Your task to perform on an android device: Go to location settings Image 0: 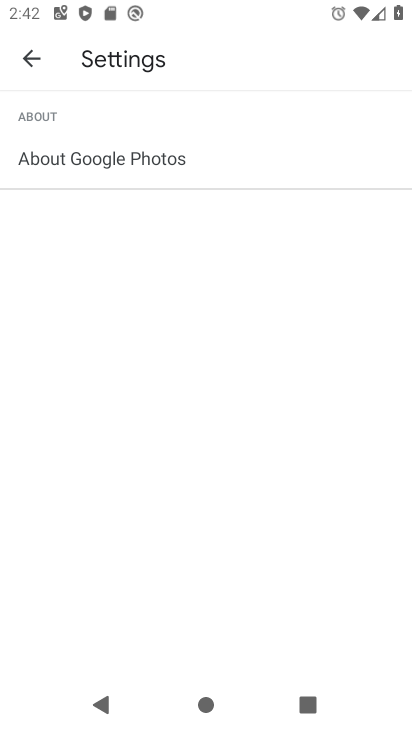
Step 0: press home button
Your task to perform on an android device: Go to location settings Image 1: 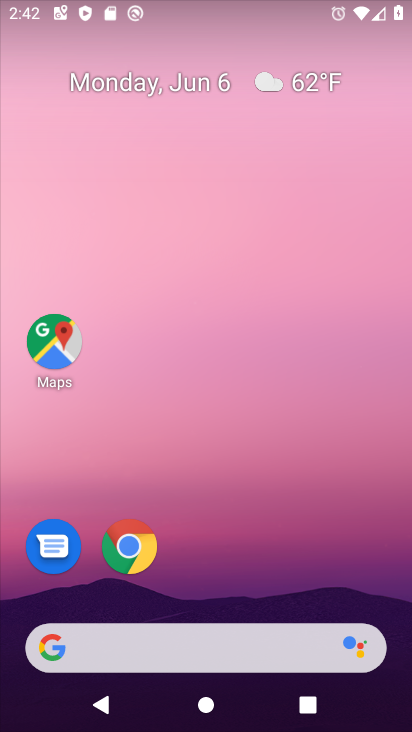
Step 1: drag from (214, 607) to (188, 245)
Your task to perform on an android device: Go to location settings Image 2: 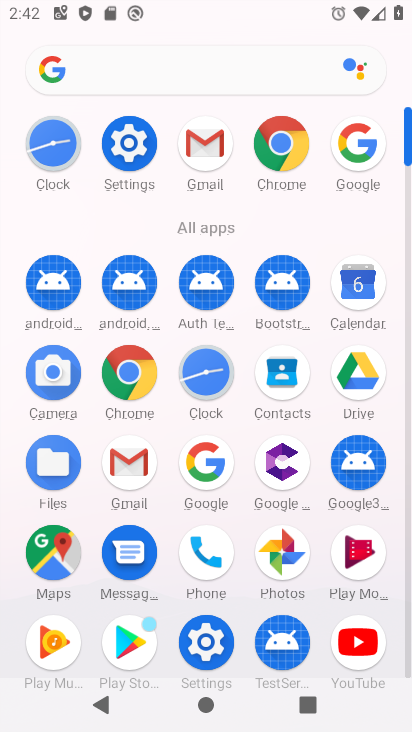
Step 2: click (132, 162)
Your task to perform on an android device: Go to location settings Image 3: 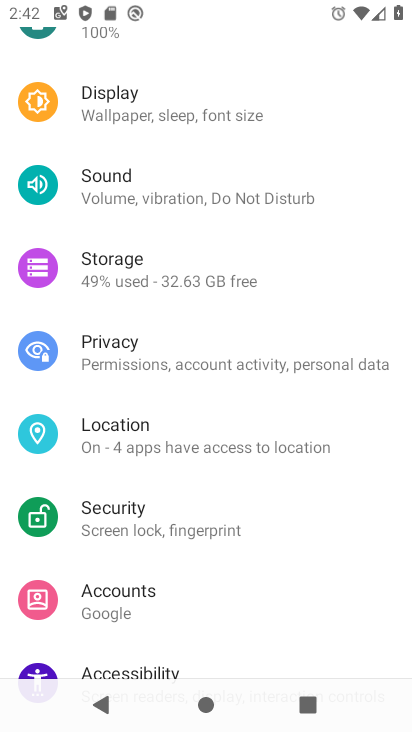
Step 3: click (181, 420)
Your task to perform on an android device: Go to location settings Image 4: 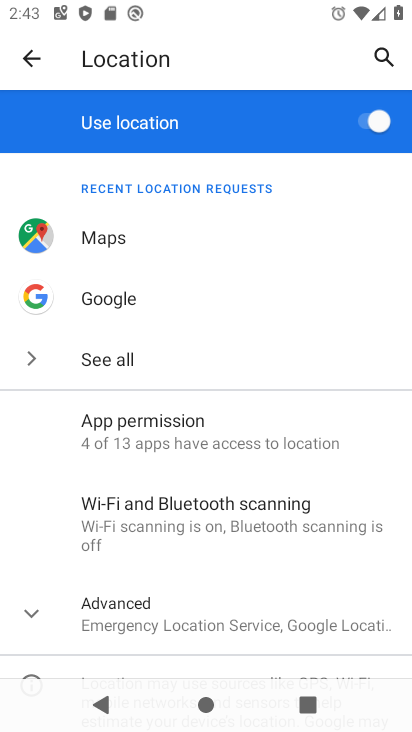
Step 4: task complete